Your task to perform on an android device: Go to calendar. Show me events next week Image 0: 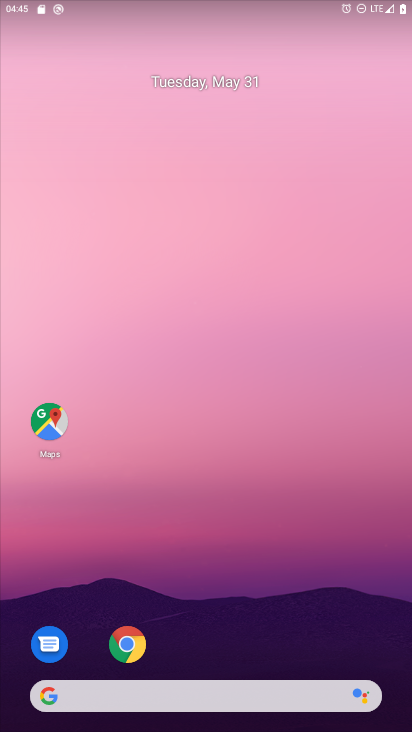
Step 0: drag from (252, 541) to (240, 105)
Your task to perform on an android device: Go to calendar. Show me events next week Image 1: 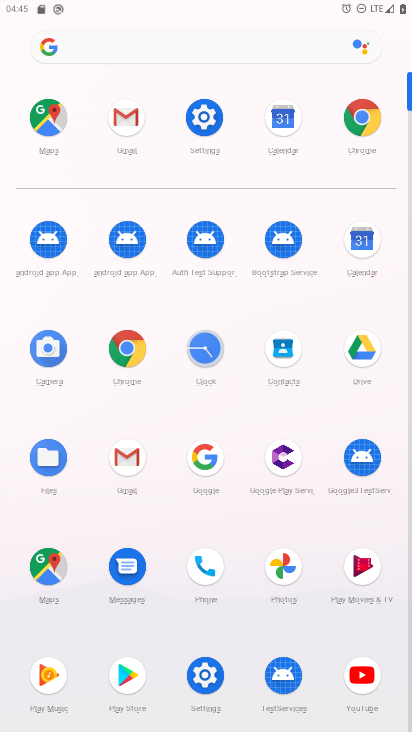
Step 1: click (275, 120)
Your task to perform on an android device: Go to calendar. Show me events next week Image 2: 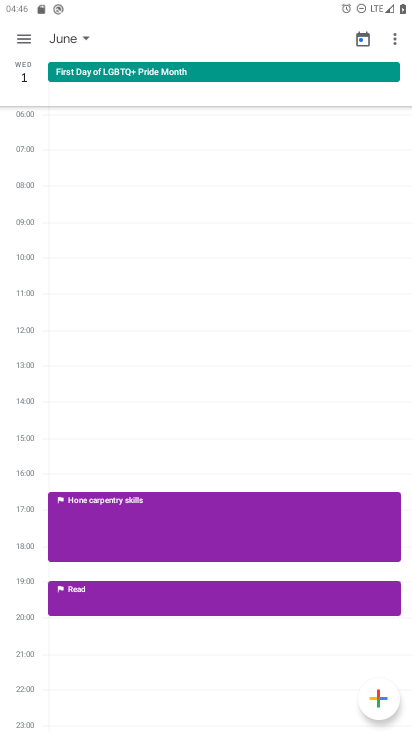
Step 2: click (59, 37)
Your task to perform on an android device: Go to calendar. Show me events next week Image 3: 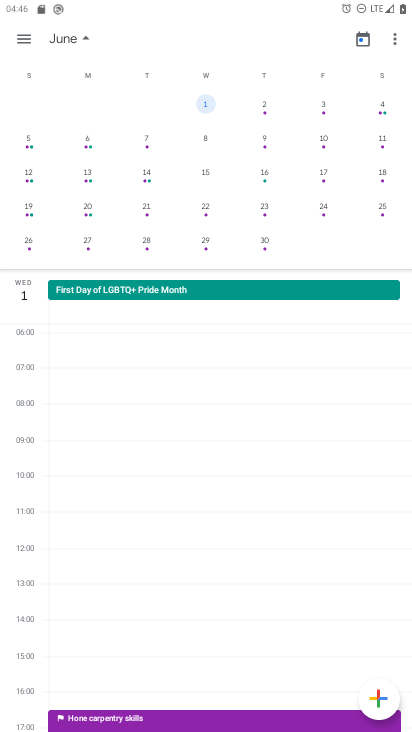
Step 3: click (29, 37)
Your task to perform on an android device: Go to calendar. Show me events next week Image 4: 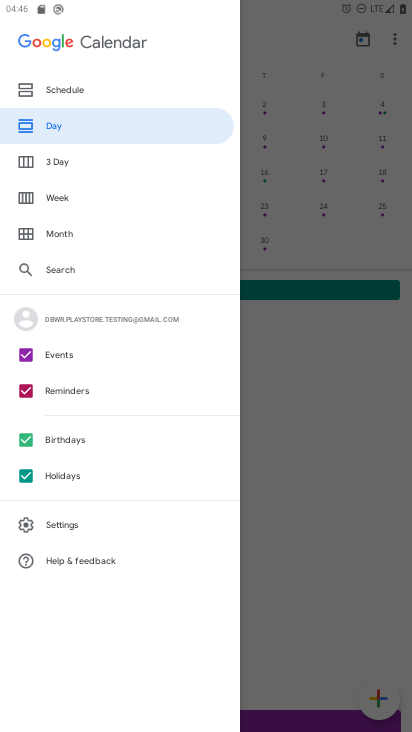
Step 4: click (70, 195)
Your task to perform on an android device: Go to calendar. Show me events next week Image 5: 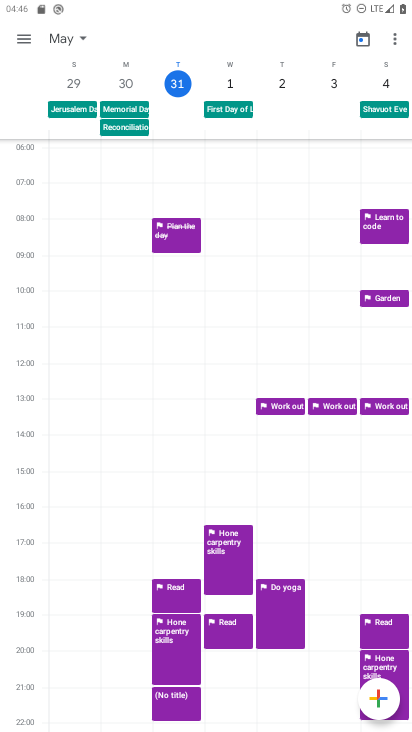
Step 5: task complete